Your task to perform on an android device: Go to display settings Image 0: 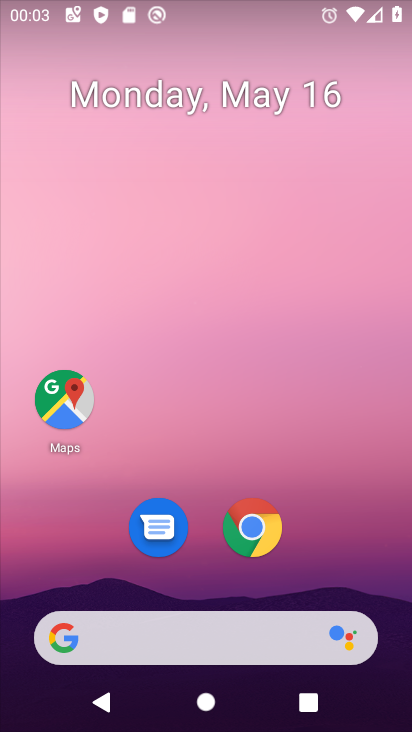
Step 0: drag from (336, 530) to (271, 189)
Your task to perform on an android device: Go to display settings Image 1: 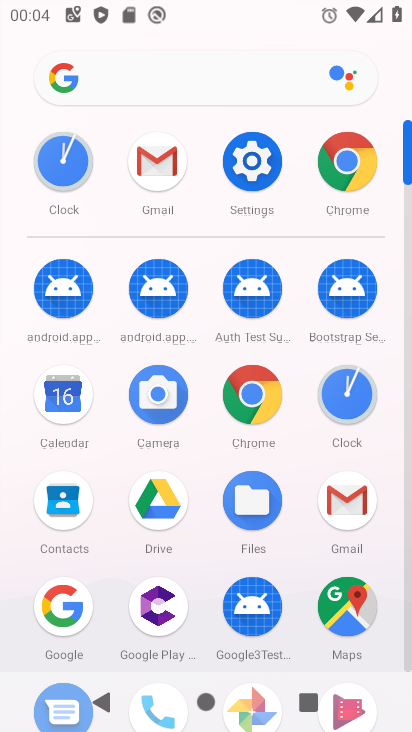
Step 1: click (259, 172)
Your task to perform on an android device: Go to display settings Image 2: 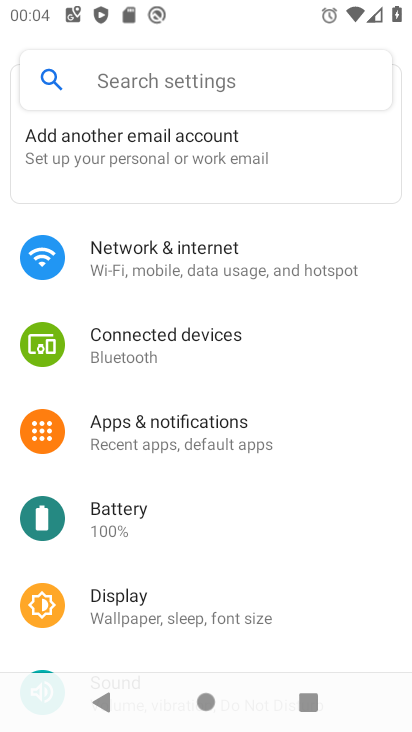
Step 2: click (196, 591)
Your task to perform on an android device: Go to display settings Image 3: 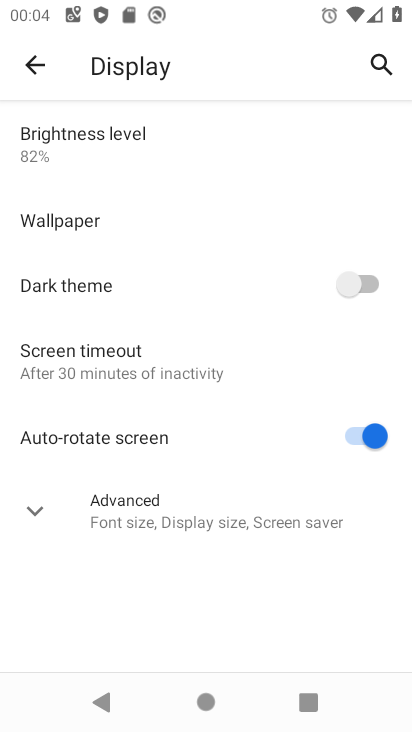
Step 3: task complete